Your task to perform on an android device: change the clock display to show seconds Image 0: 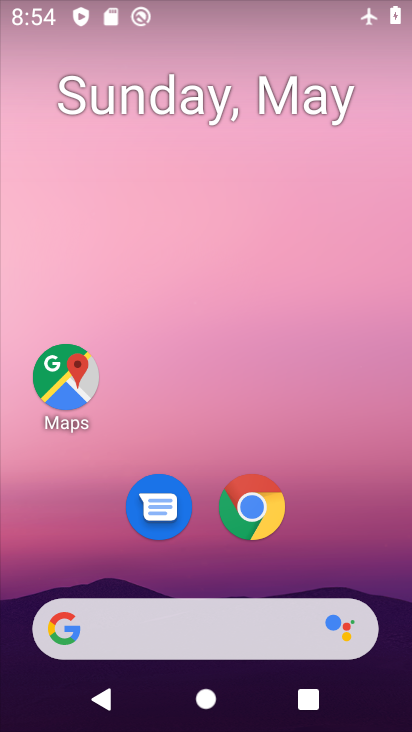
Step 0: drag from (217, 572) to (261, 171)
Your task to perform on an android device: change the clock display to show seconds Image 1: 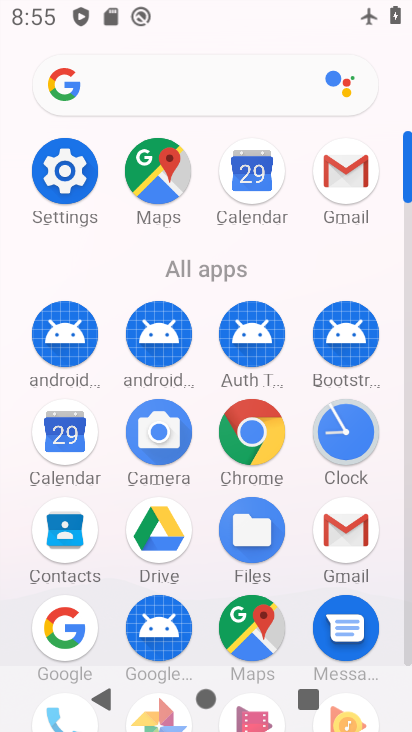
Step 1: click (341, 432)
Your task to perform on an android device: change the clock display to show seconds Image 2: 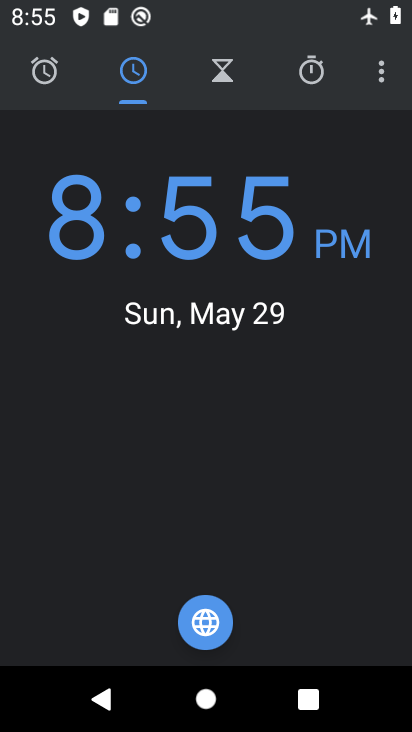
Step 2: click (383, 77)
Your task to perform on an android device: change the clock display to show seconds Image 3: 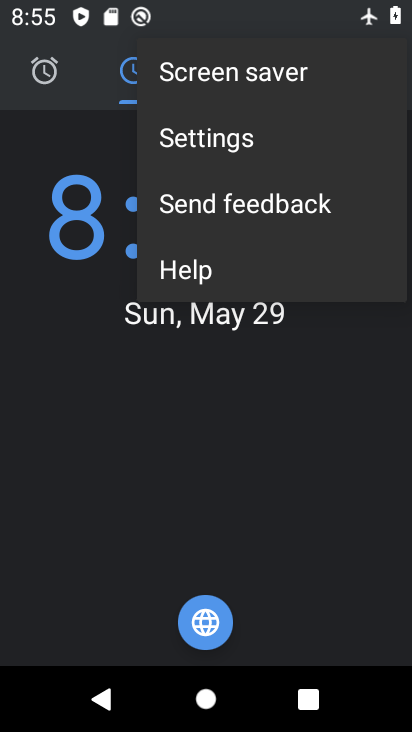
Step 3: click (224, 149)
Your task to perform on an android device: change the clock display to show seconds Image 4: 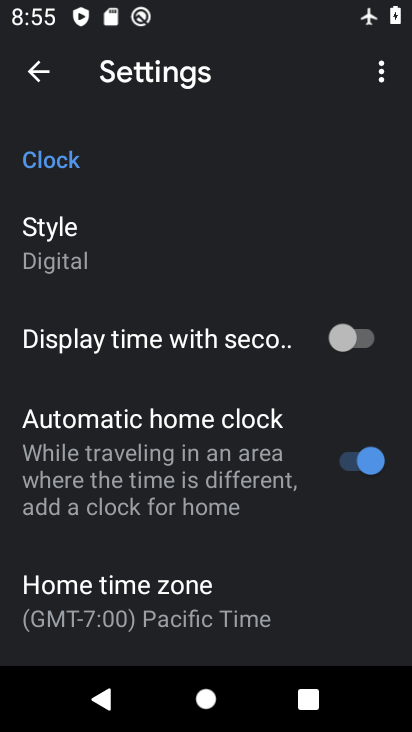
Step 4: click (397, 337)
Your task to perform on an android device: change the clock display to show seconds Image 5: 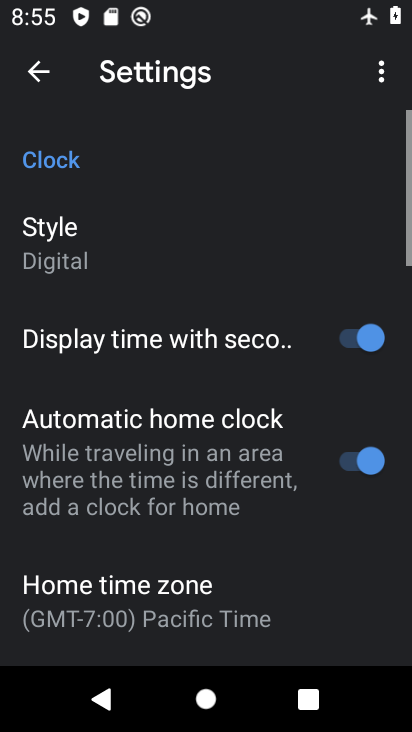
Step 5: click (83, 253)
Your task to perform on an android device: change the clock display to show seconds Image 6: 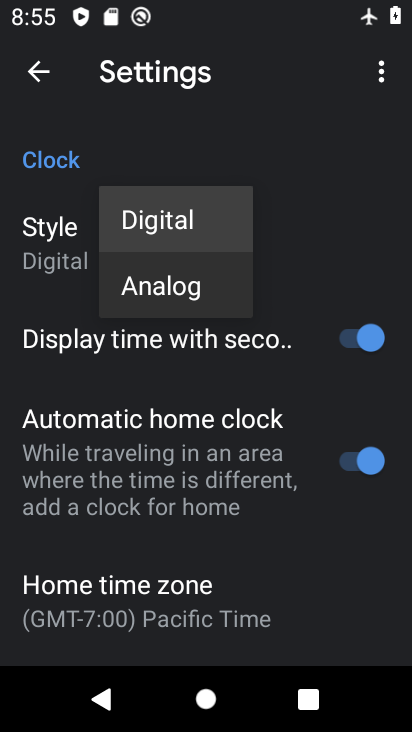
Step 6: click (160, 290)
Your task to perform on an android device: change the clock display to show seconds Image 7: 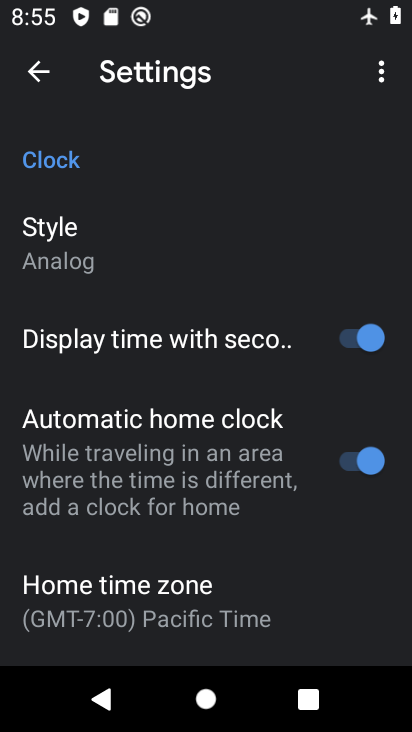
Step 7: task complete